Your task to perform on an android device: Go to Reddit.com Image 0: 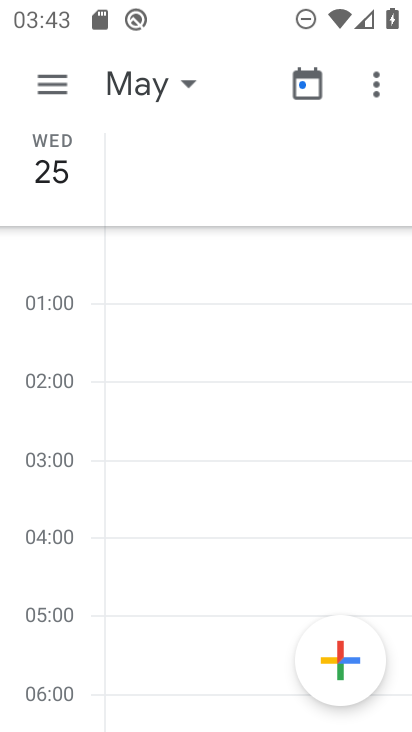
Step 0: press home button
Your task to perform on an android device: Go to Reddit.com Image 1: 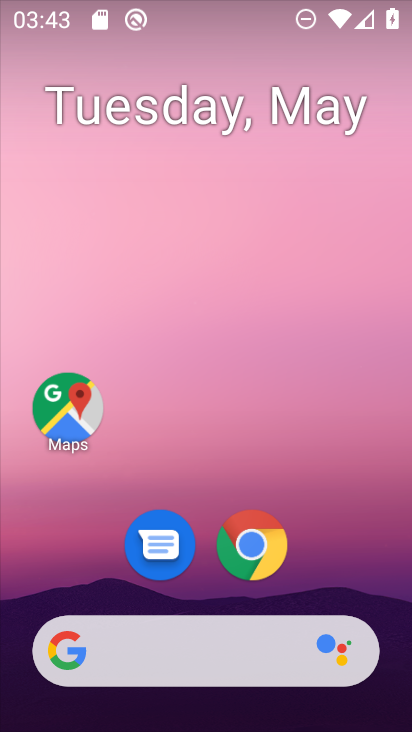
Step 1: click (258, 544)
Your task to perform on an android device: Go to Reddit.com Image 2: 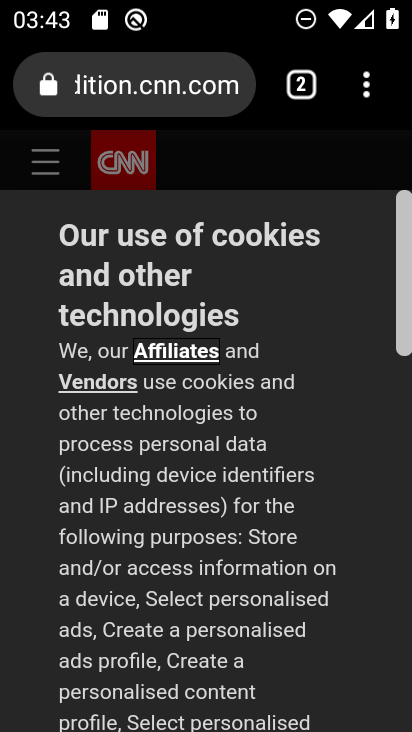
Step 2: click (150, 82)
Your task to perform on an android device: Go to Reddit.com Image 3: 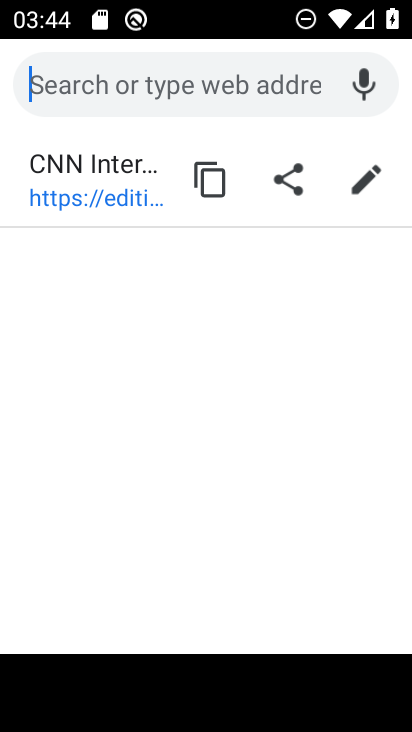
Step 3: type "reddita.com"
Your task to perform on an android device: Go to Reddit.com Image 4: 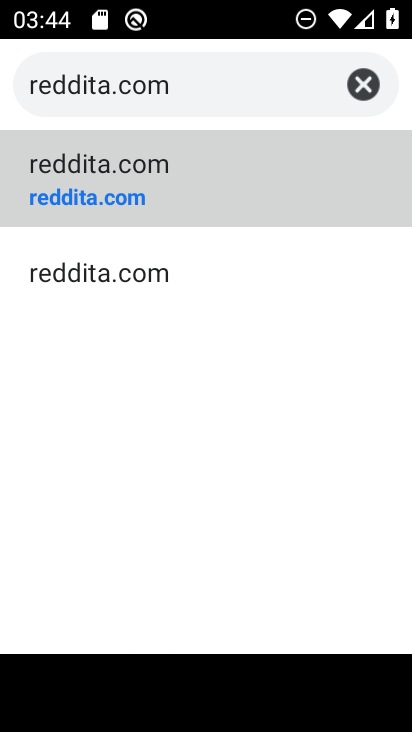
Step 4: click (48, 184)
Your task to perform on an android device: Go to Reddit.com Image 5: 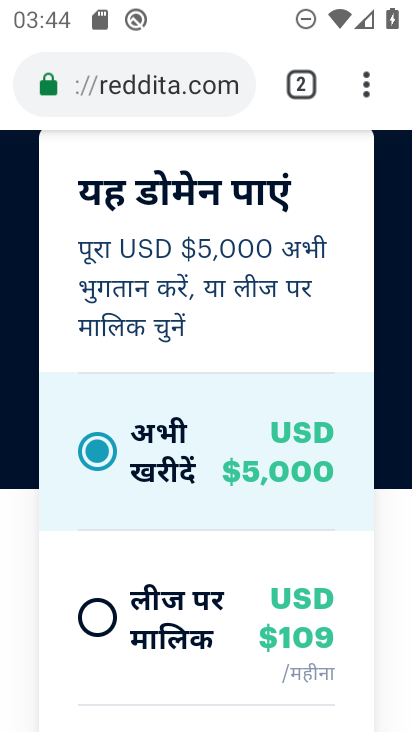
Step 5: task complete